Your task to perform on an android device: search for starred emails in the gmail app Image 0: 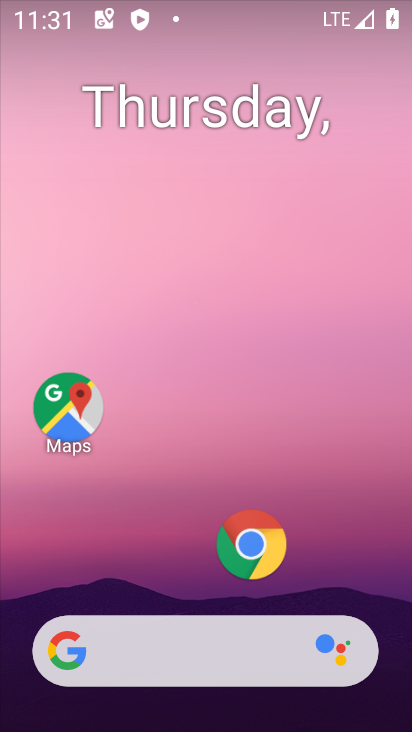
Step 0: drag from (167, 588) to (406, 345)
Your task to perform on an android device: search for starred emails in the gmail app Image 1: 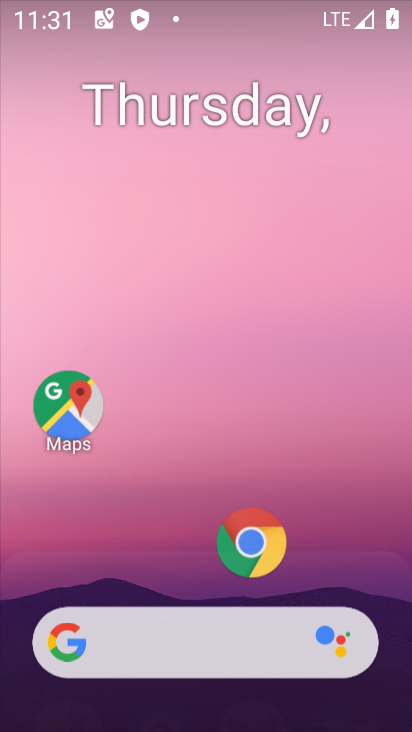
Step 1: click (332, 544)
Your task to perform on an android device: search for starred emails in the gmail app Image 2: 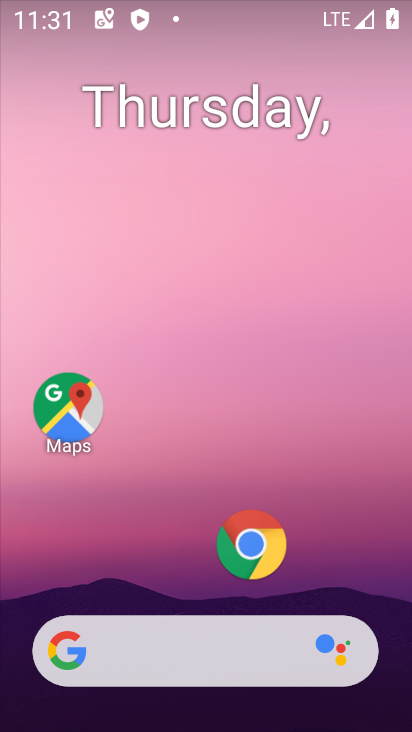
Step 2: drag from (334, 542) to (338, 9)
Your task to perform on an android device: search for starred emails in the gmail app Image 3: 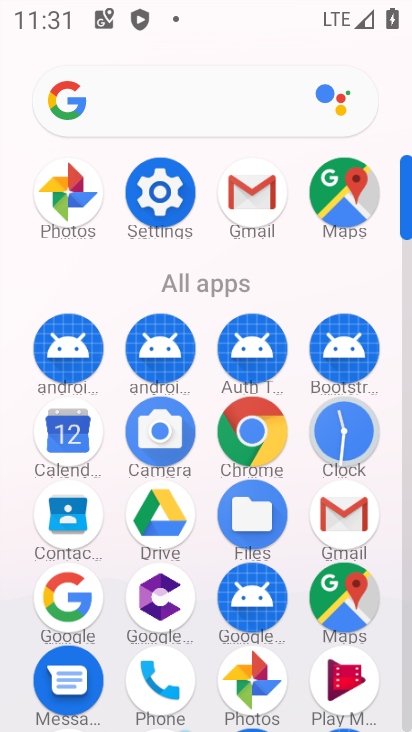
Step 3: click (368, 520)
Your task to perform on an android device: search for starred emails in the gmail app Image 4: 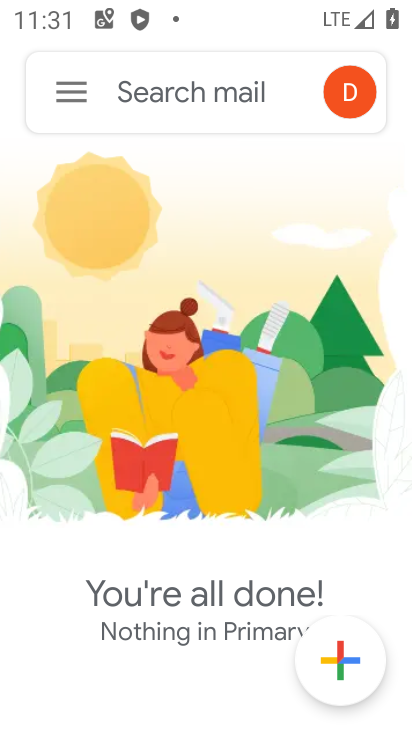
Step 4: click (81, 84)
Your task to perform on an android device: search for starred emails in the gmail app Image 5: 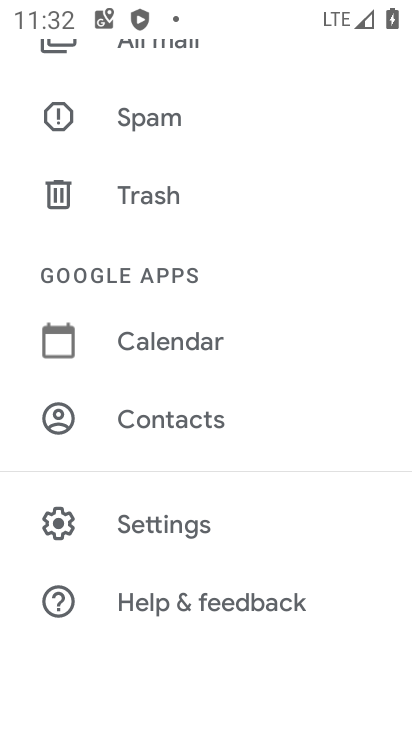
Step 5: drag from (139, 191) to (102, 725)
Your task to perform on an android device: search for starred emails in the gmail app Image 6: 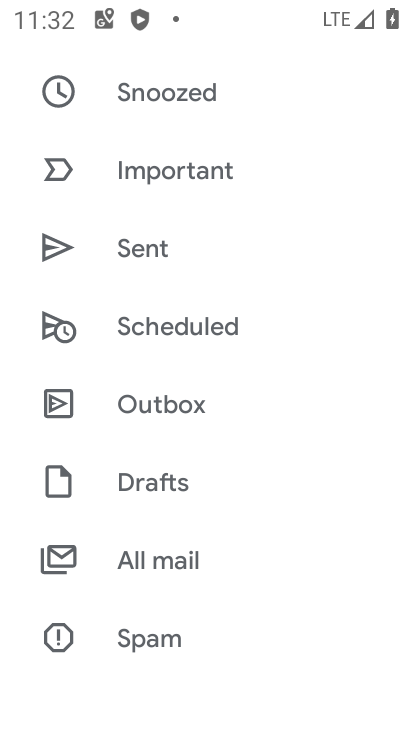
Step 6: drag from (164, 174) to (100, 606)
Your task to perform on an android device: search for starred emails in the gmail app Image 7: 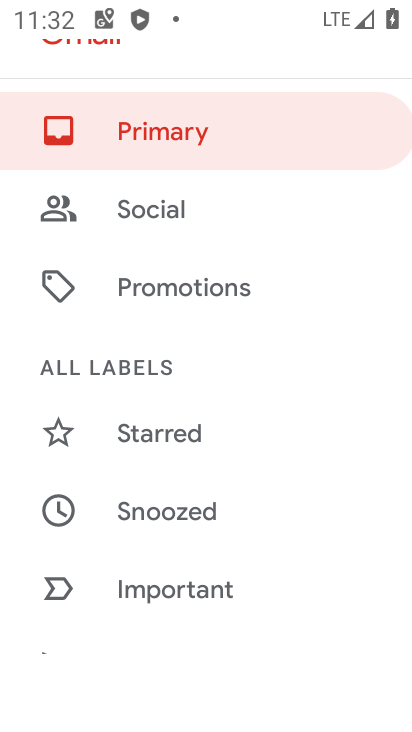
Step 7: click (152, 450)
Your task to perform on an android device: search for starred emails in the gmail app Image 8: 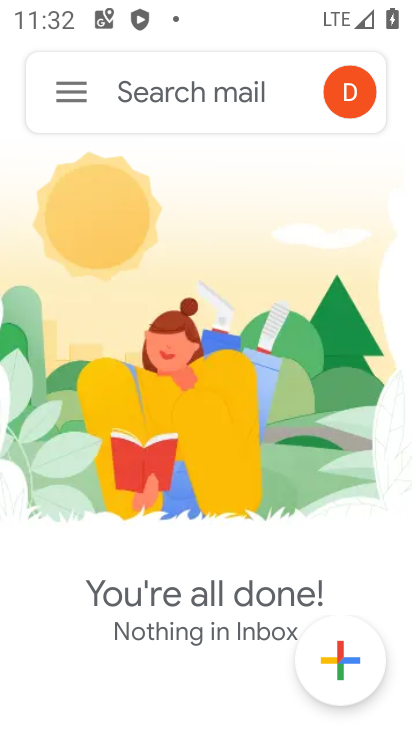
Step 8: task complete